Your task to perform on an android device: read, delete, or share a saved page in the chrome app Image 0: 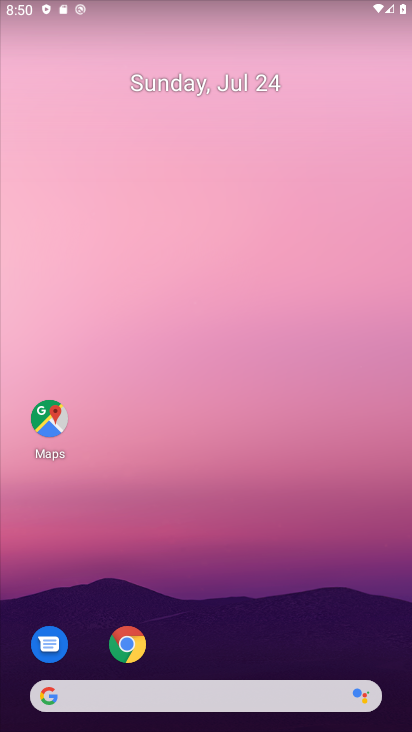
Step 0: drag from (210, 245) to (210, 98)
Your task to perform on an android device: read, delete, or share a saved page in the chrome app Image 1: 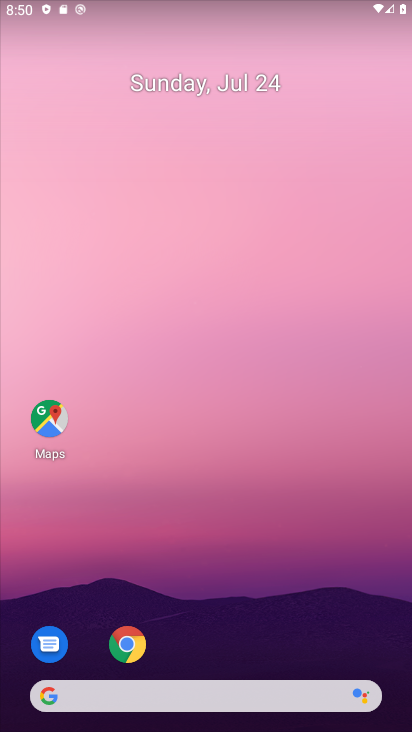
Step 1: drag from (282, 624) to (277, 72)
Your task to perform on an android device: read, delete, or share a saved page in the chrome app Image 2: 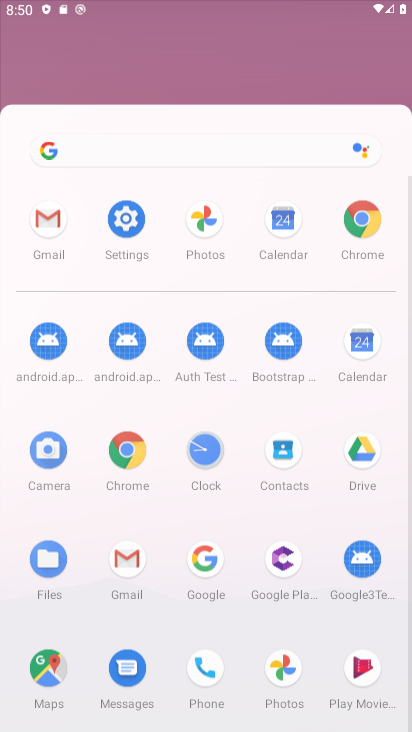
Step 2: drag from (161, 610) to (159, 179)
Your task to perform on an android device: read, delete, or share a saved page in the chrome app Image 3: 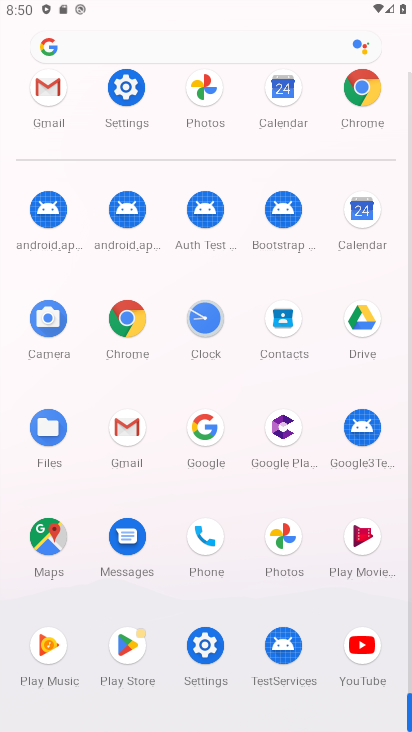
Step 3: drag from (159, 471) to (209, 17)
Your task to perform on an android device: read, delete, or share a saved page in the chrome app Image 4: 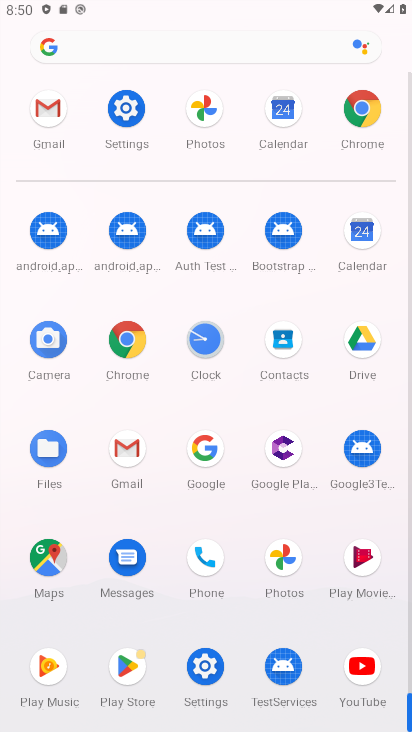
Step 4: click (361, 109)
Your task to perform on an android device: read, delete, or share a saved page in the chrome app Image 5: 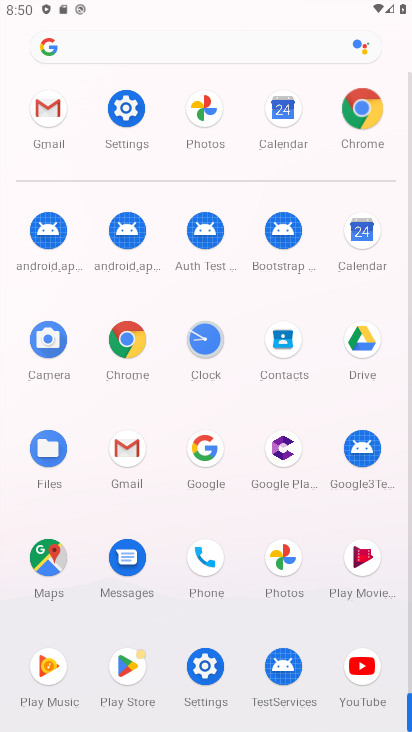
Step 5: click (364, 116)
Your task to perform on an android device: read, delete, or share a saved page in the chrome app Image 6: 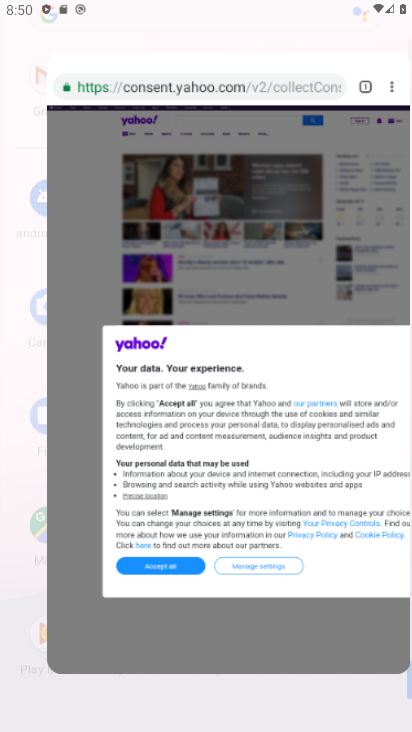
Step 6: click (364, 116)
Your task to perform on an android device: read, delete, or share a saved page in the chrome app Image 7: 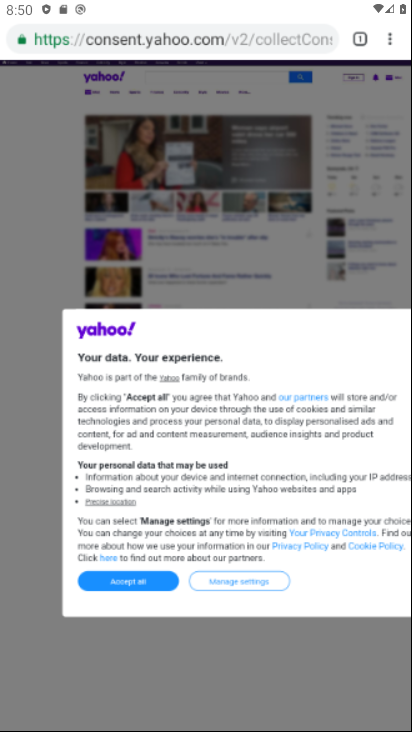
Step 7: click (360, 119)
Your task to perform on an android device: read, delete, or share a saved page in the chrome app Image 8: 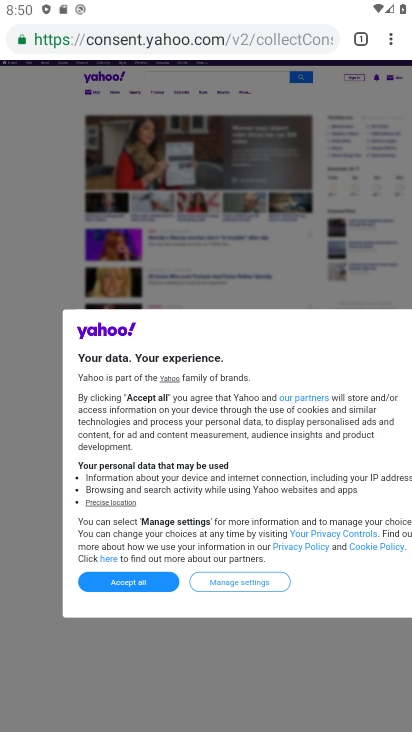
Step 8: drag from (391, 31) to (251, 248)
Your task to perform on an android device: read, delete, or share a saved page in the chrome app Image 9: 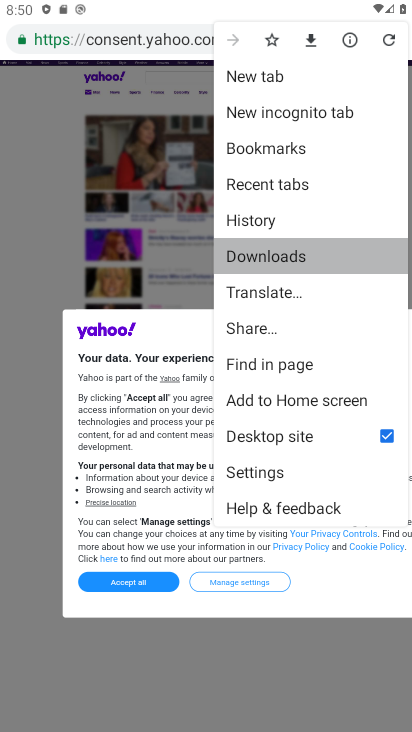
Step 9: click (254, 256)
Your task to perform on an android device: read, delete, or share a saved page in the chrome app Image 10: 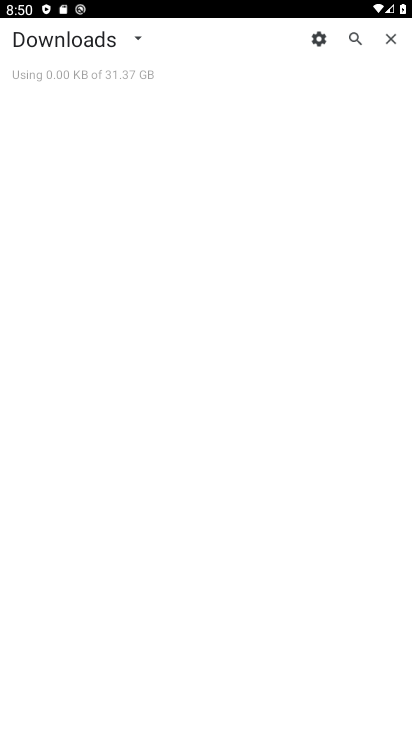
Step 10: click (142, 32)
Your task to perform on an android device: read, delete, or share a saved page in the chrome app Image 11: 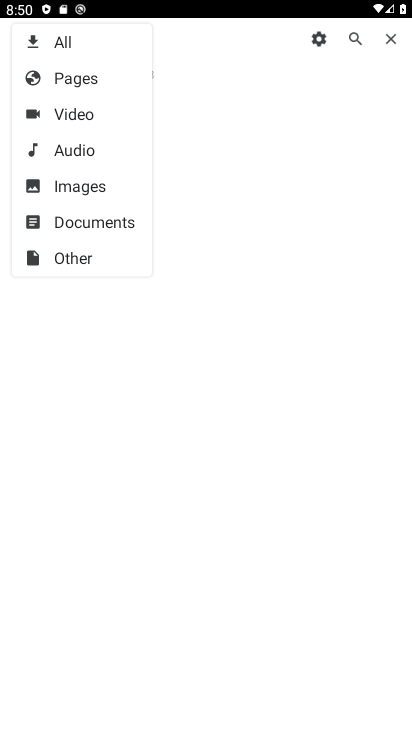
Step 11: click (71, 111)
Your task to perform on an android device: read, delete, or share a saved page in the chrome app Image 12: 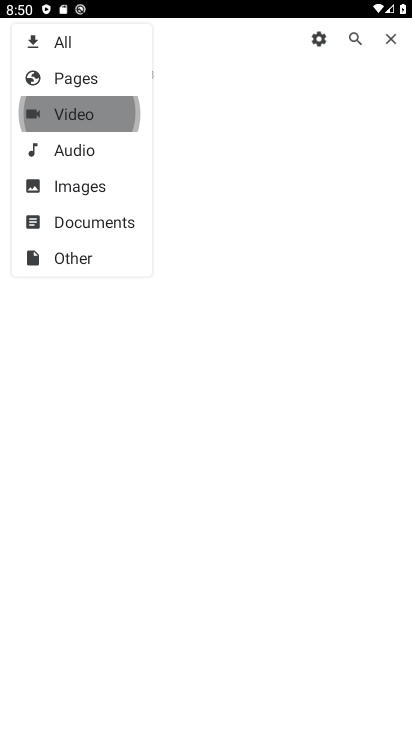
Step 12: click (73, 112)
Your task to perform on an android device: read, delete, or share a saved page in the chrome app Image 13: 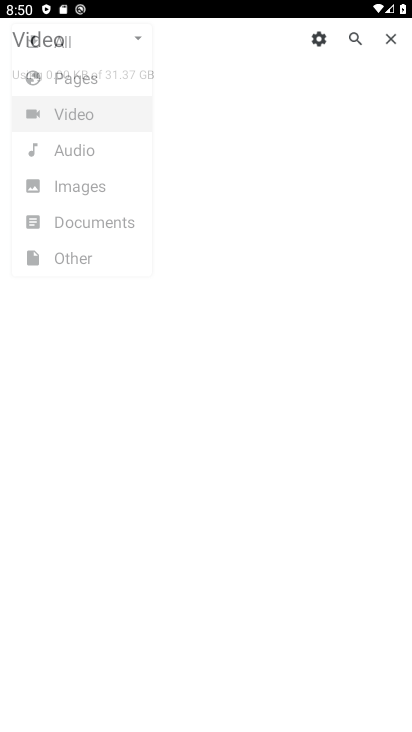
Step 13: click (77, 116)
Your task to perform on an android device: read, delete, or share a saved page in the chrome app Image 14: 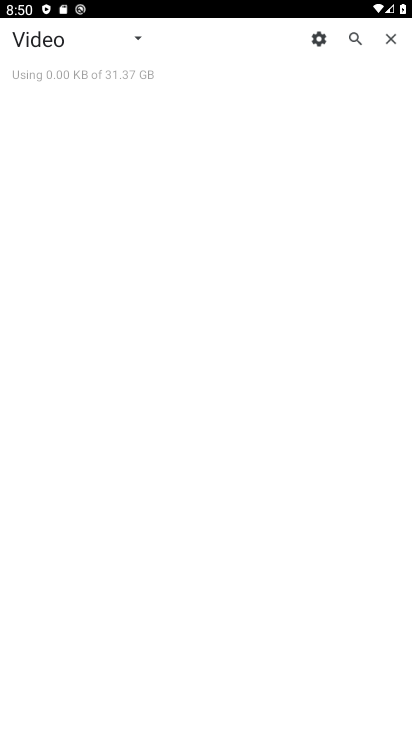
Step 14: click (78, 119)
Your task to perform on an android device: read, delete, or share a saved page in the chrome app Image 15: 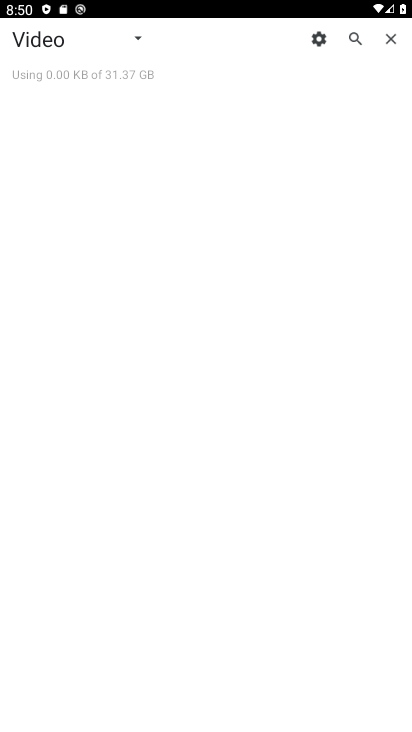
Step 15: task complete